Your task to perform on an android device: toggle priority inbox in the gmail app Image 0: 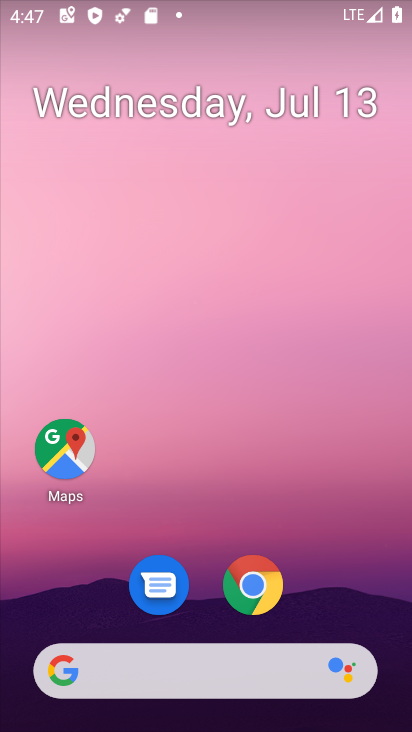
Step 0: drag from (251, 437) to (259, 35)
Your task to perform on an android device: toggle priority inbox in the gmail app Image 1: 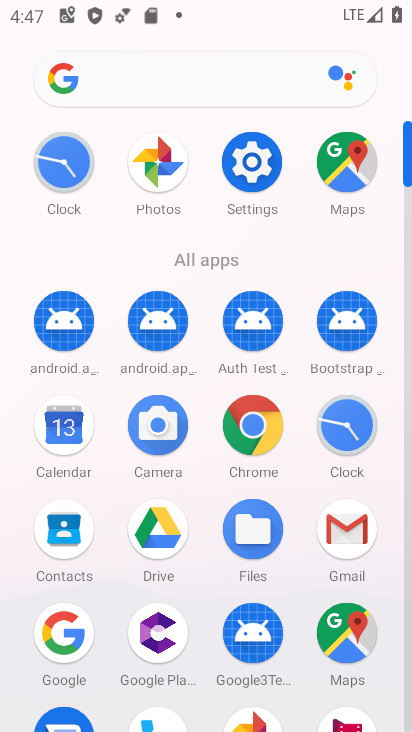
Step 1: click (349, 522)
Your task to perform on an android device: toggle priority inbox in the gmail app Image 2: 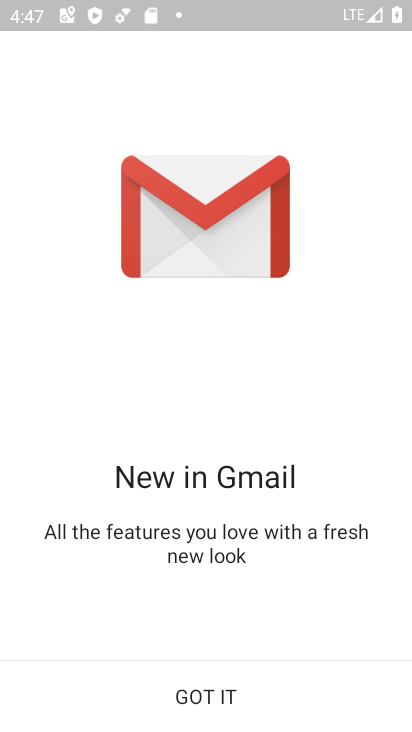
Step 2: click (209, 683)
Your task to perform on an android device: toggle priority inbox in the gmail app Image 3: 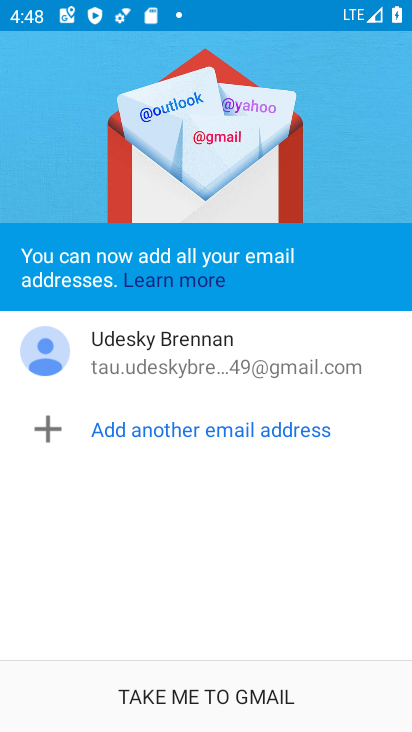
Step 3: click (244, 689)
Your task to perform on an android device: toggle priority inbox in the gmail app Image 4: 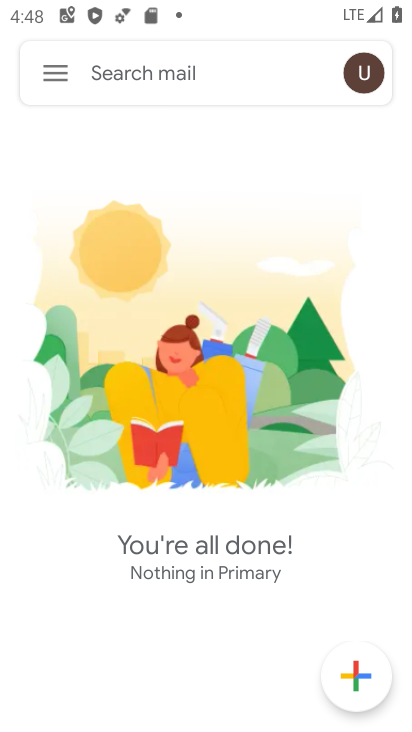
Step 4: press home button
Your task to perform on an android device: toggle priority inbox in the gmail app Image 5: 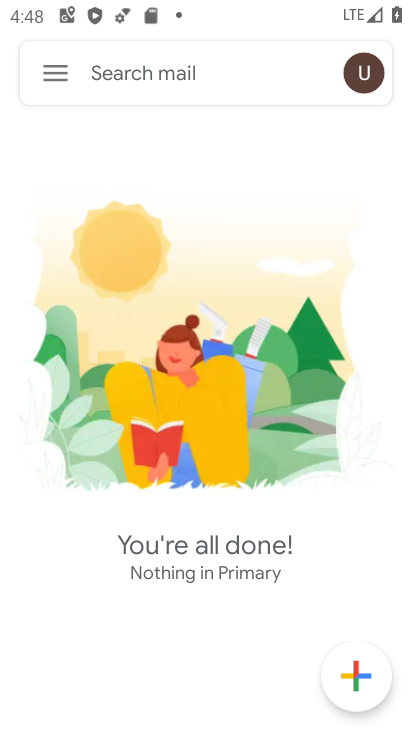
Step 5: press home button
Your task to perform on an android device: toggle priority inbox in the gmail app Image 6: 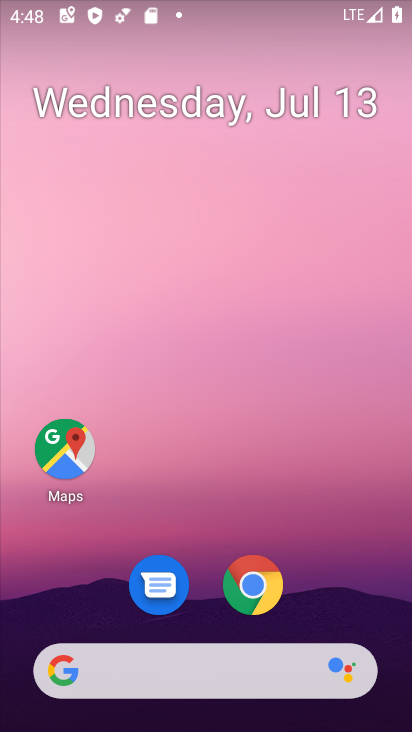
Step 6: drag from (319, 605) to (303, 43)
Your task to perform on an android device: toggle priority inbox in the gmail app Image 7: 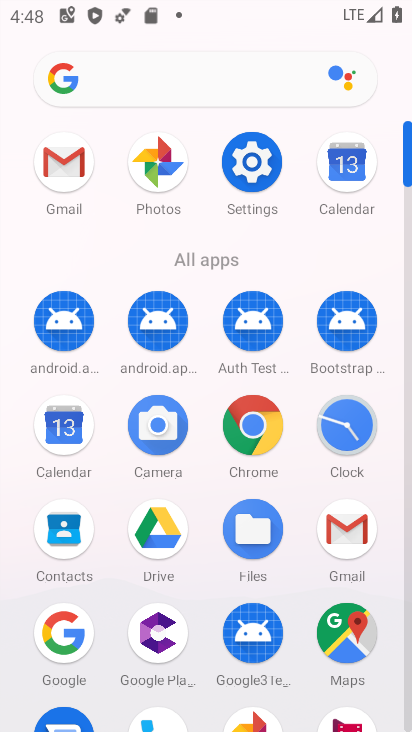
Step 7: click (54, 176)
Your task to perform on an android device: toggle priority inbox in the gmail app Image 8: 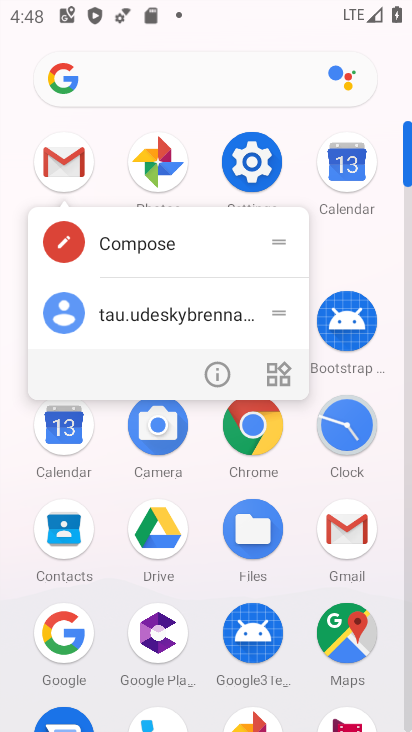
Step 8: click (56, 165)
Your task to perform on an android device: toggle priority inbox in the gmail app Image 9: 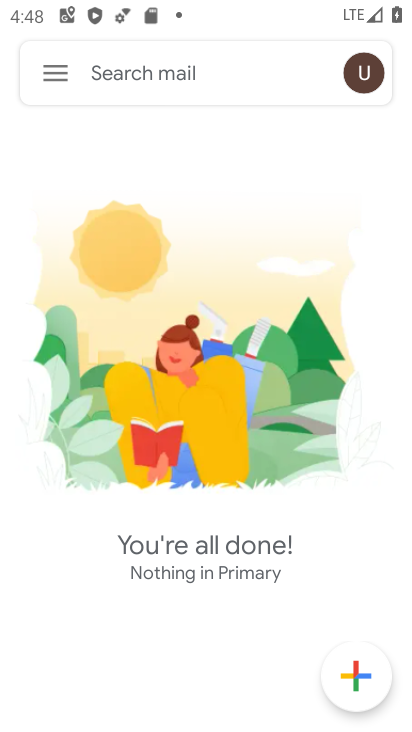
Step 9: click (56, 74)
Your task to perform on an android device: toggle priority inbox in the gmail app Image 10: 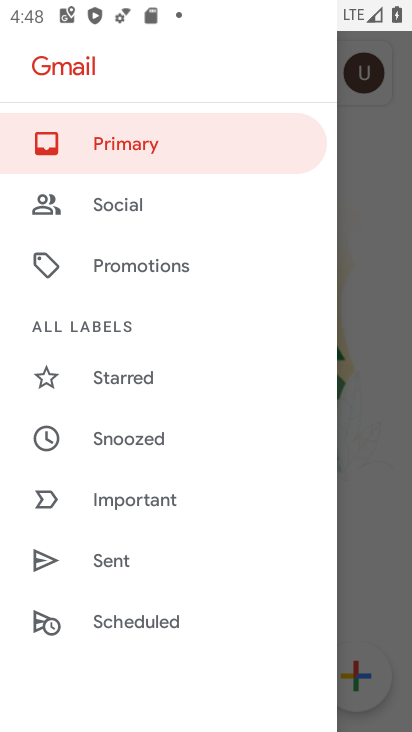
Step 10: drag from (145, 550) to (166, 166)
Your task to perform on an android device: toggle priority inbox in the gmail app Image 11: 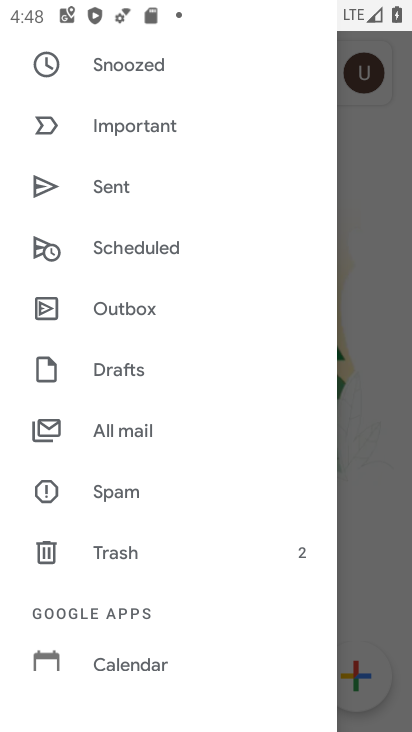
Step 11: drag from (167, 545) to (190, 315)
Your task to perform on an android device: toggle priority inbox in the gmail app Image 12: 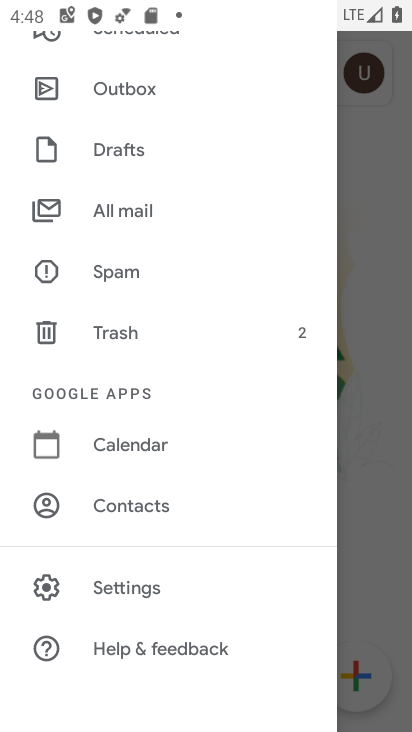
Step 12: drag from (164, 553) to (188, 322)
Your task to perform on an android device: toggle priority inbox in the gmail app Image 13: 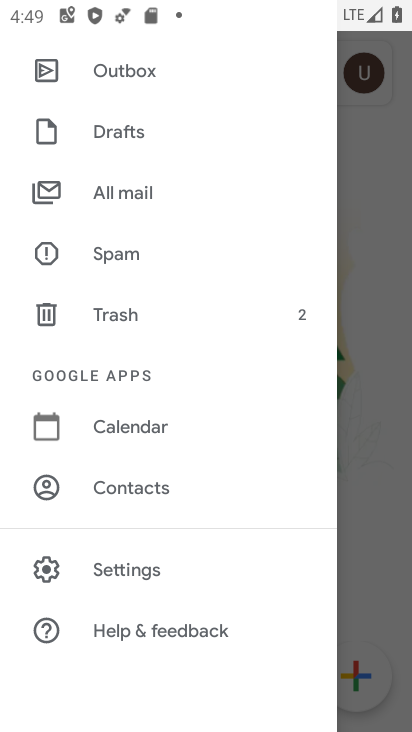
Step 13: drag from (177, 286) to (171, 544)
Your task to perform on an android device: toggle priority inbox in the gmail app Image 14: 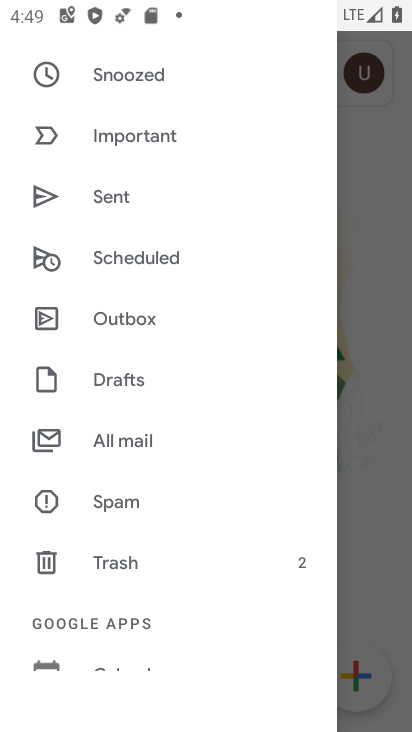
Step 14: drag from (179, 480) to (189, 236)
Your task to perform on an android device: toggle priority inbox in the gmail app Image 15: 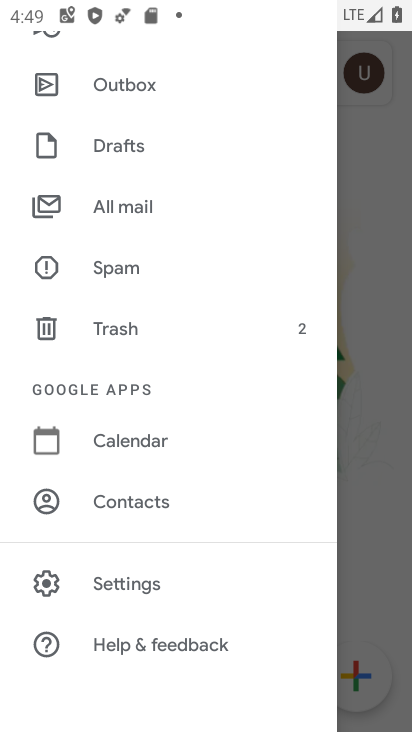
Step 15: click (127, 572)
Your task to perform on an android device: toggle priority inbox in the gmail app Image 16: 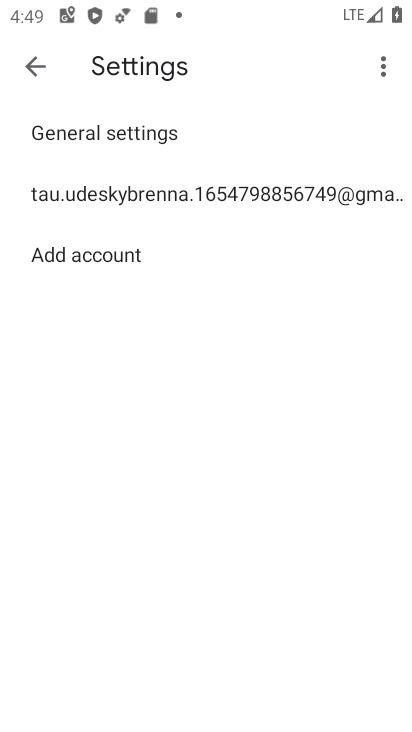
Step 16: click (252, 193)
Your task to perform on an android device: toggle priority inbox in the gmail app Image 17: 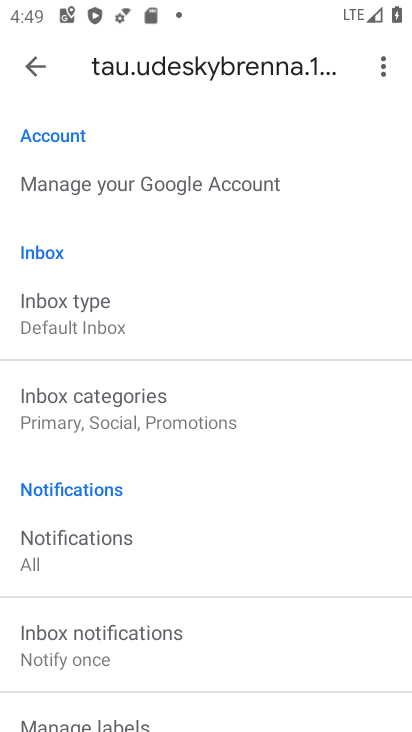
Step 17: click (76, 315)
Your task to perform on an android device: toggle priority inbox in the gmail app Image 18: 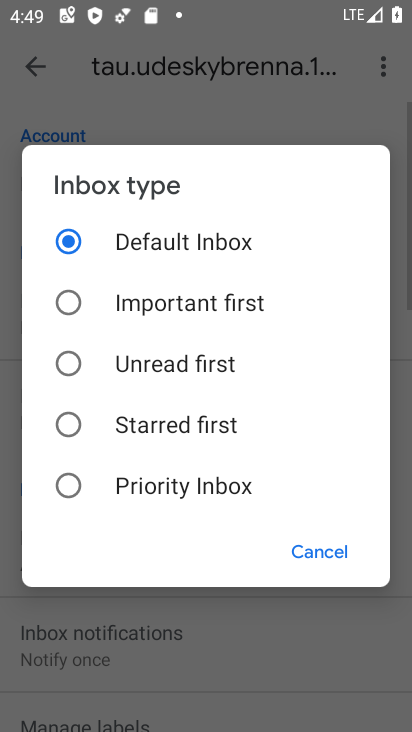
Step 18: click (73, 483)
Your task to perform on an android device: toggle priority inbox in the gmail app Image 19: 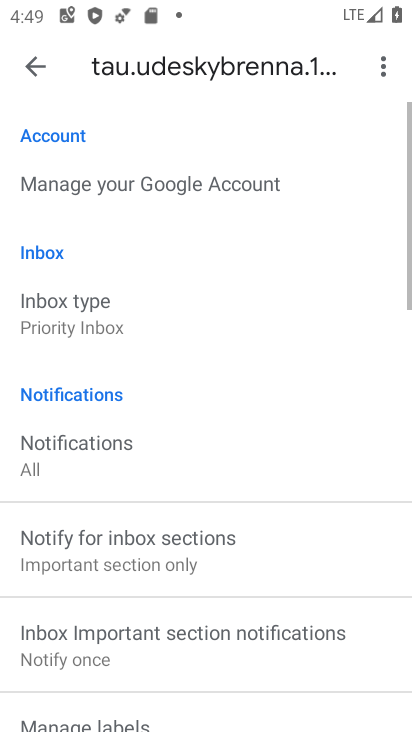
Step 19: task complete